Your task to perform on an android device: turn off location Image 0: 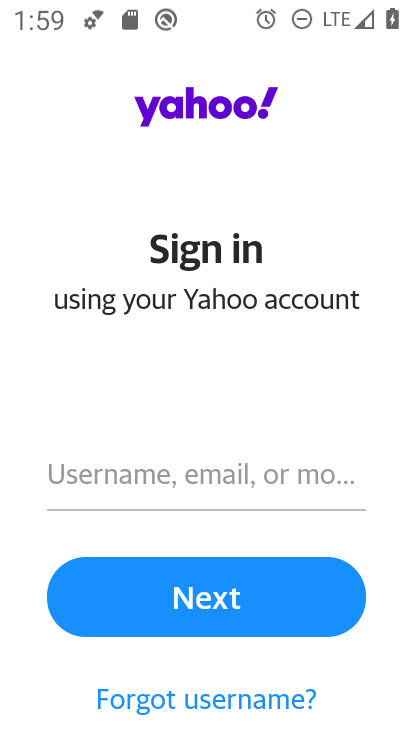
Step 0: press home button
Your task to perform on an android device: turn off location Image 1: 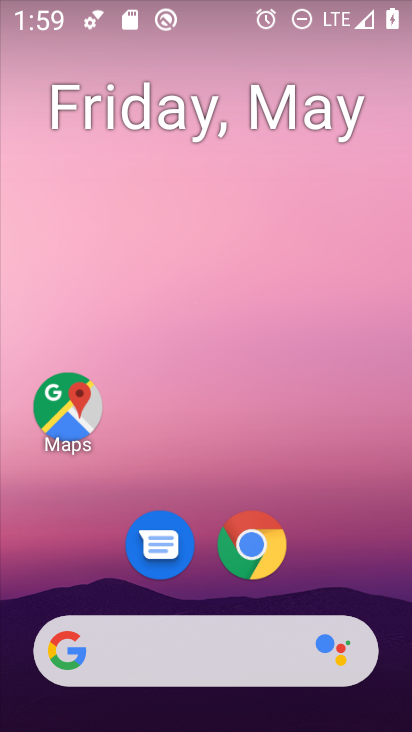
Step 1: drag from (323, 577) to (308, 358)
Your task to perform on an android device: turn off location Image 2: 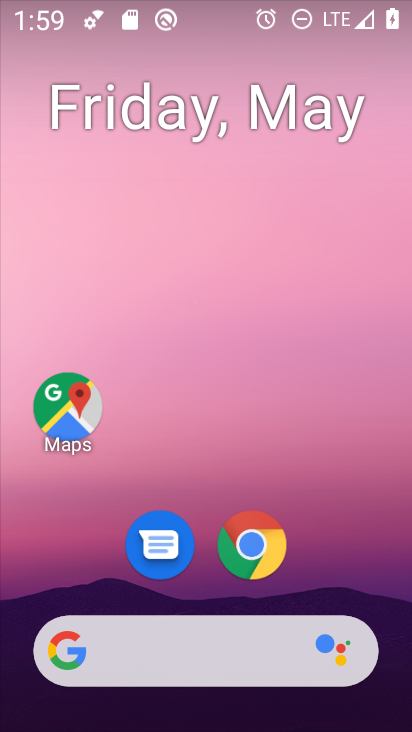
Step 2: drag from (323, 561) to (315, 206)
Your task to perform on an android device: turn off location Image 3: 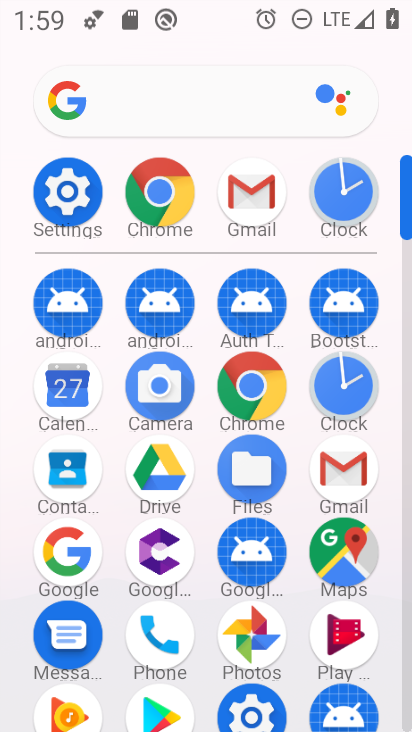
Step 3: click (81, 166)
Your task to perform on an android device: turn off location Image 4: 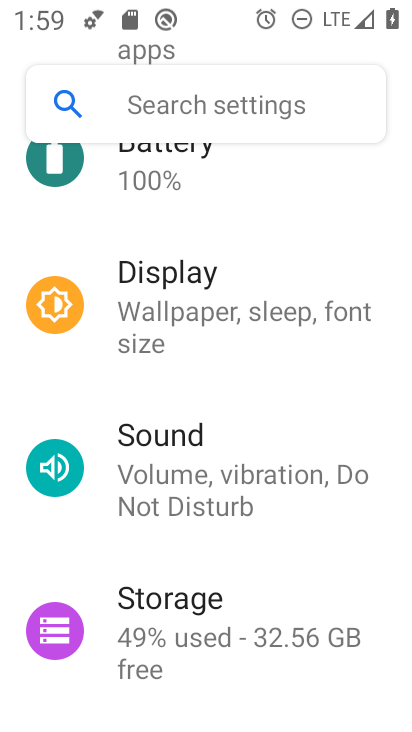
Step 4: drag from (273, 207) to (238, 626)
Your task to perform on an android device: turn off location Image 5: 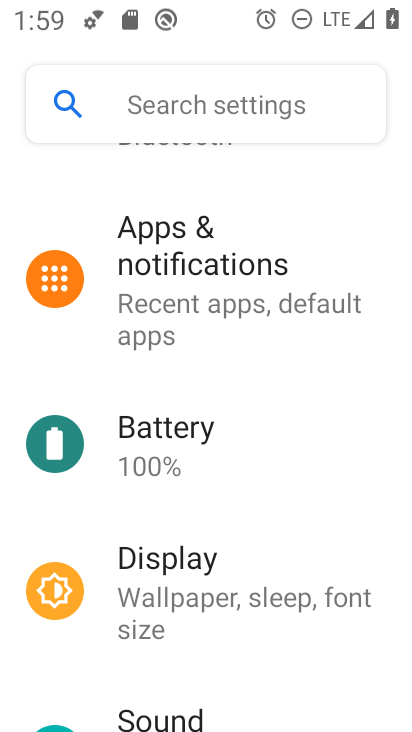
Step 5: drag from (262, 220) to (275, 603)
Your task to perform on an android device: turn off location Image 6: 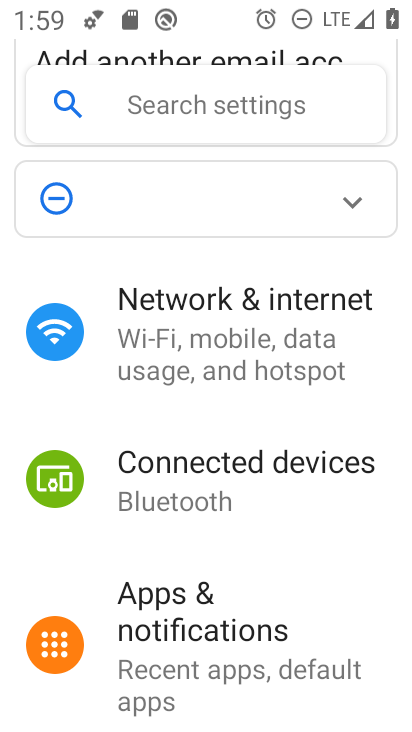
Step 6: drag from (276, 619) to (275, 265)
Your task to perform on an android device: turn off location Image 7: 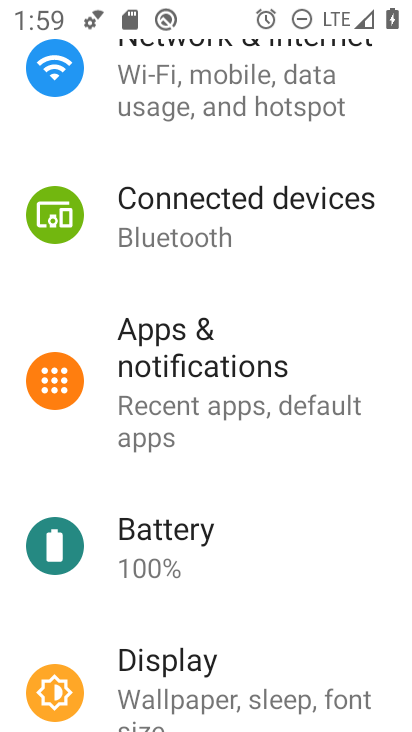
Step 7: drag from (188, 540) to (245, 276)
Your task to perform on an android device: turn off location Image 8: 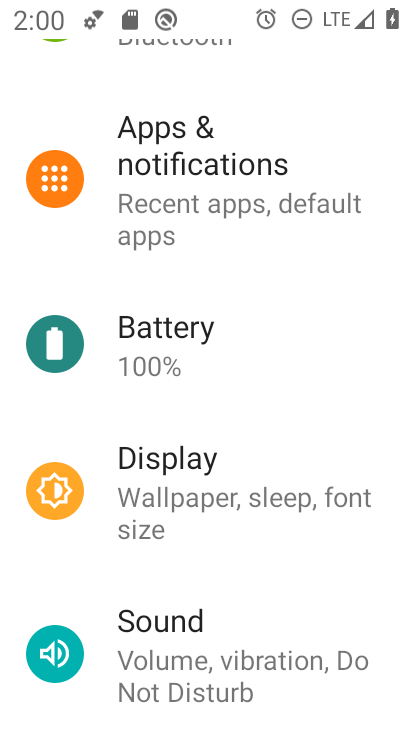
Step 8: drag from (189, 613) to (303, 158)
Your task to perform on an android device: turn off location Image 9: 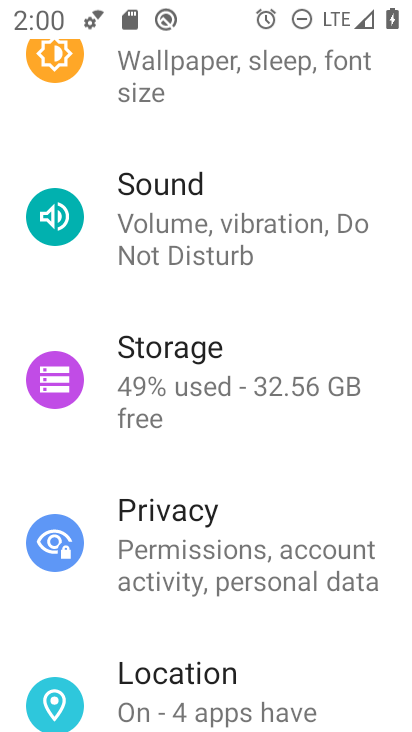
Step 9: click (197, 679)
Your task to perform on an android device: turn off location Image 10: 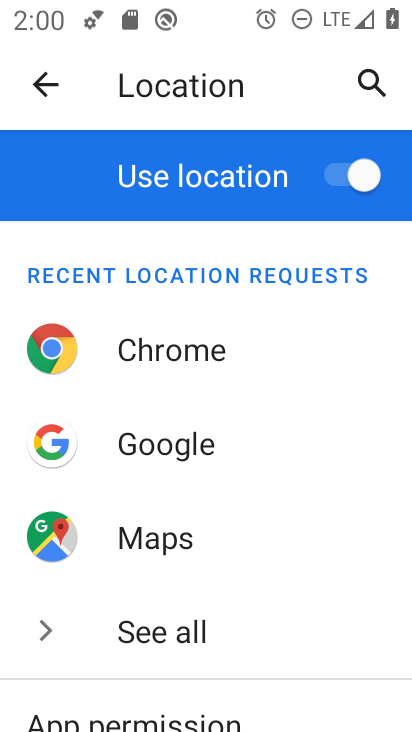
Step 10: task complete